Your task to perform on an android device: Show me productivity apps on the Play Store Image 0: 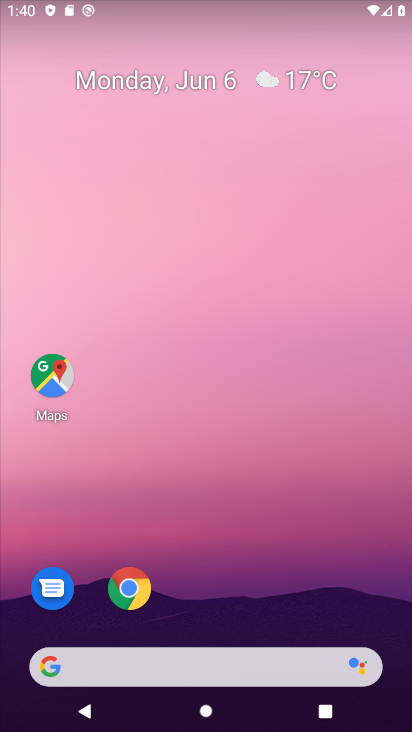
Step 0: drag from (228, 664) to (166, 20)
Your task to perform on an android device: Show me productivity apps on the Play Store Image 1: 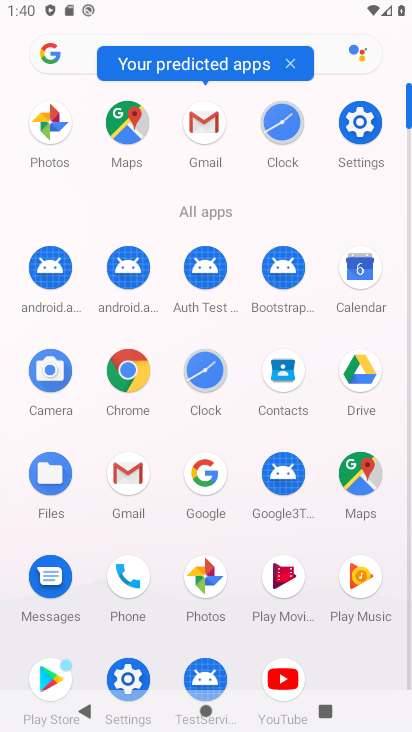
Step 1: click (64, 662)
Your task to perform on an android device: Show me productivity apps on the Play Store Image 2: 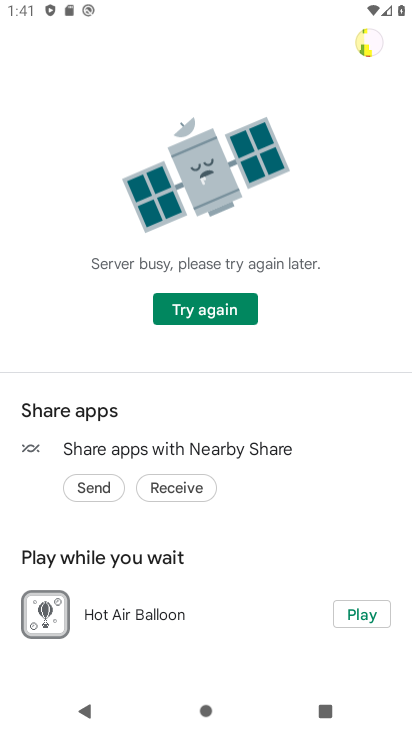
Step 2: click (213, 315)
Your task to perform on an android device: Show me productivity apps on the Play Store Image 3: 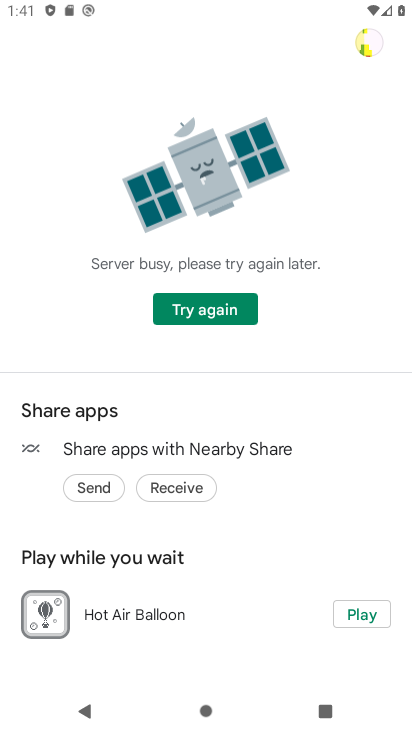
Step 3: task complete